Your task to perform on an android device: Open the calendar app, open the side menu, and click the "Day" option Image 0: 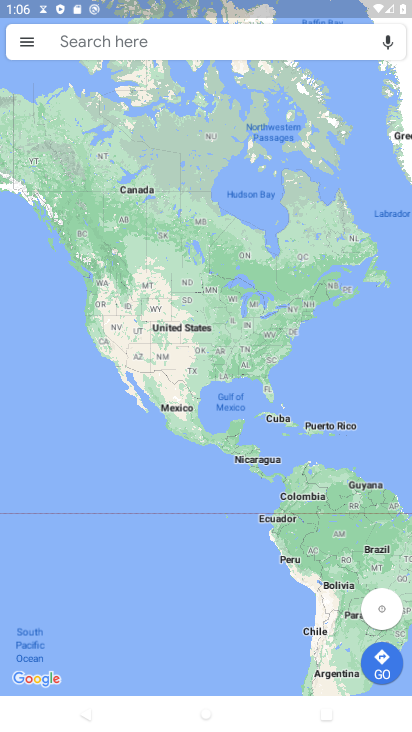
Step 0: press home button
Your task to perform on an android device: Open the calendar app, open the side menu, and click the "Day" option Image 1: 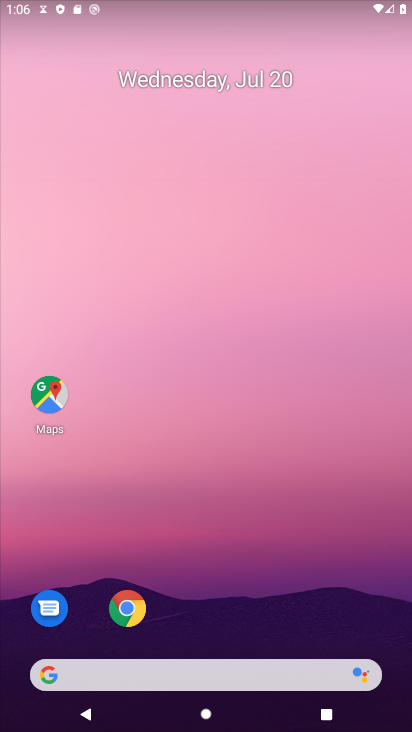
Step 1: drag from (220, 677) to (222, 195)
Your task to perform on an android device: Open the calendar app, open the side menu, and click the "Day" option Image 2: 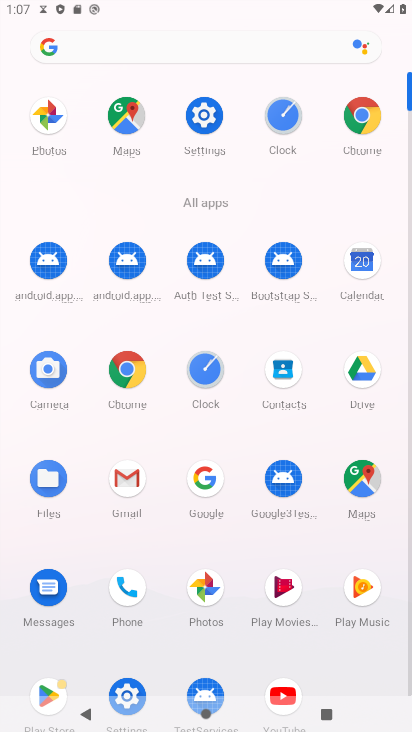
Step 2: click (366, 262)
Your task to perform on an android device: Open the calendar app, open the side menu, and click the "Day" option Image 3: 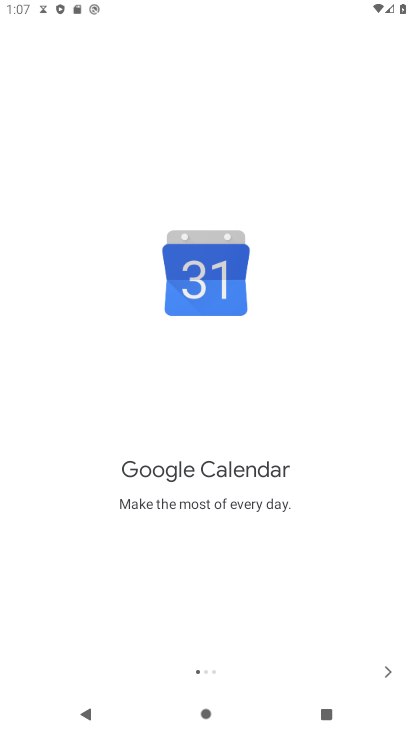
Step 3: click (384, 667)
Your task to perform on an android device: Open the calendar app, open the side menu, and click the "Day" option Image 4: 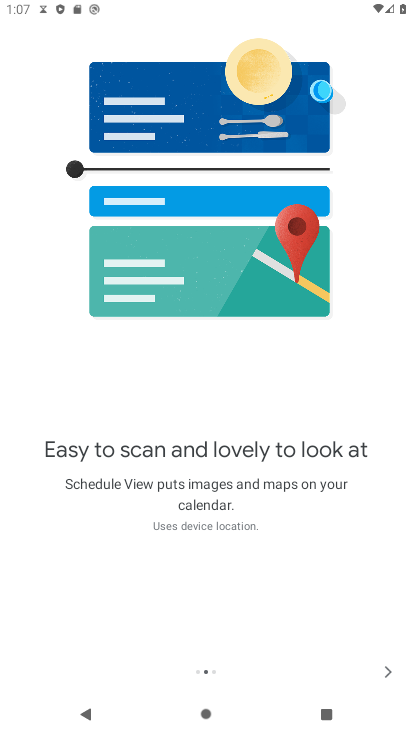
Step 4: click (384, 667)
Your task to perform on an android device: Open the calendar app, open the side menu, and click the "Day" option Image 5: 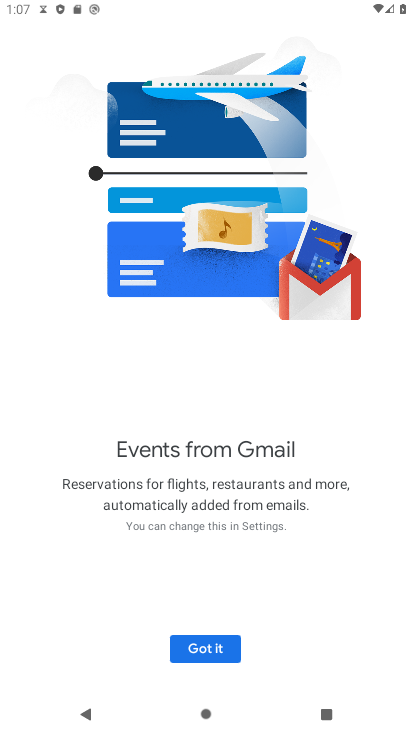
Step 5: click (219, 650)
Your task to perform on an android device: Open the calendar app, open the side menu, and click the "Day" option Image 6: 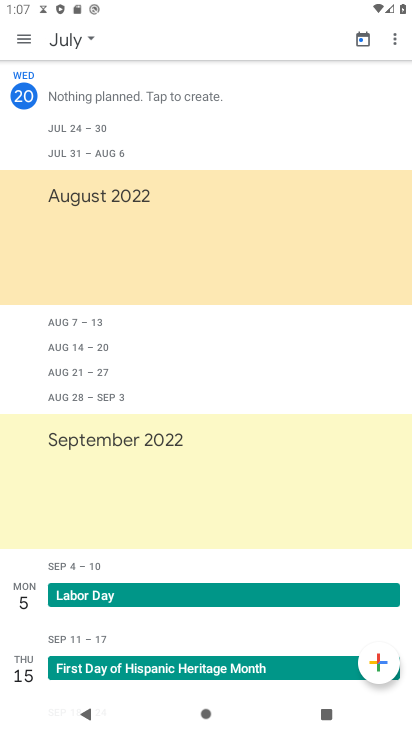
Step 6: click (24, 36)
Your task to perform on an android device: Open the calendar app, open the side menu, and click the "Day" option Image 7: 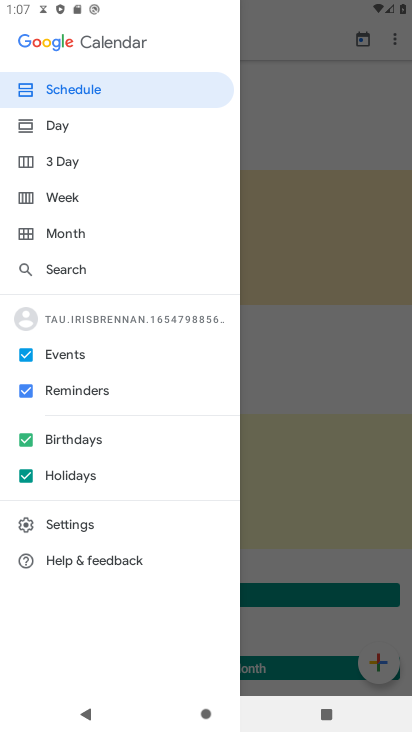
Step 7: click (60, 121)
Your task to perform on an android device: Open the calendar app, open the side menu, and click the "Day" option Image 8: 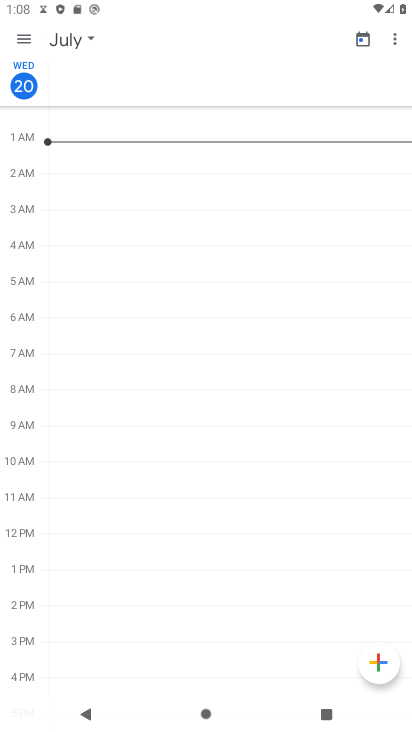
Step 8: task complete